Your task to perform on an android device: open sync settings in chrome Image 0: 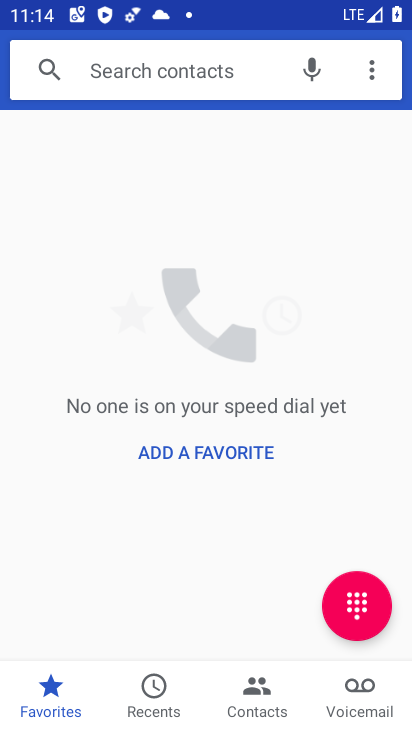
Step 0: press home button
Your task to perform on an android device: open sync settings in chrome Image 1: 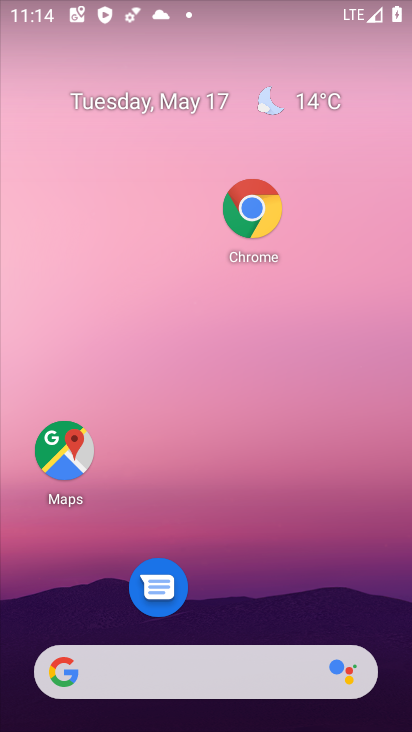
Step 1: click (254, 201)
Your task to perform on an android device: open sync settings in chrome Image 2: 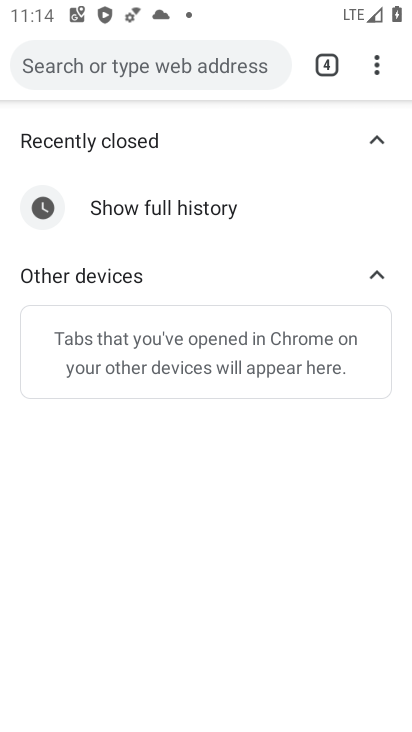
Step 2: click (386, 71)
Your task to perform on an android device: open sync settings in chrome Image 3: 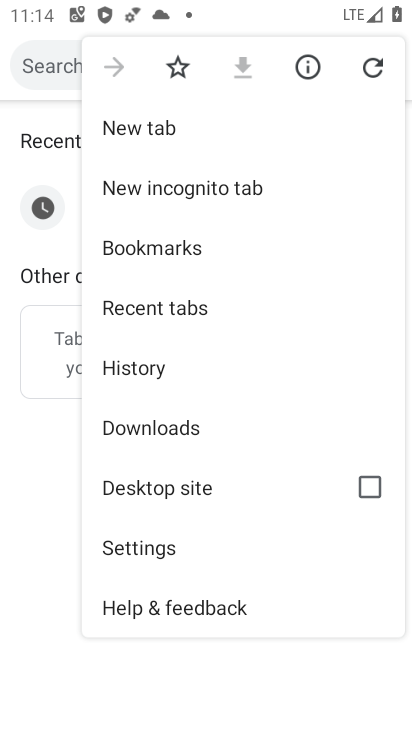
Step 3: click (161, 544)
Your task to perform on an android device: open sync settings in chrome Image 4: 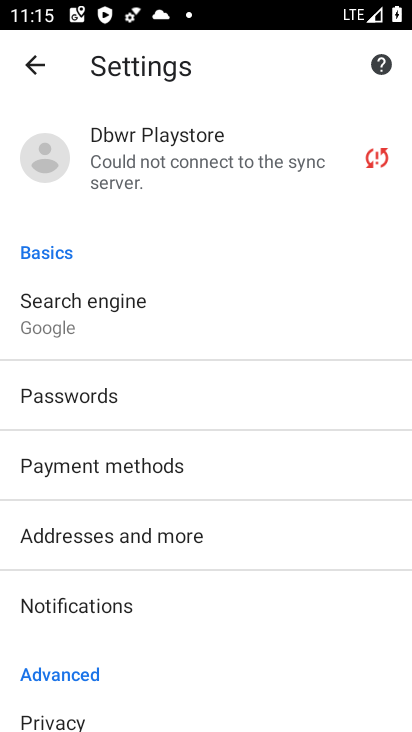
Step 4: click (241, 147)
Your task to perform on an android device: open sync settings in chrome Image 5: 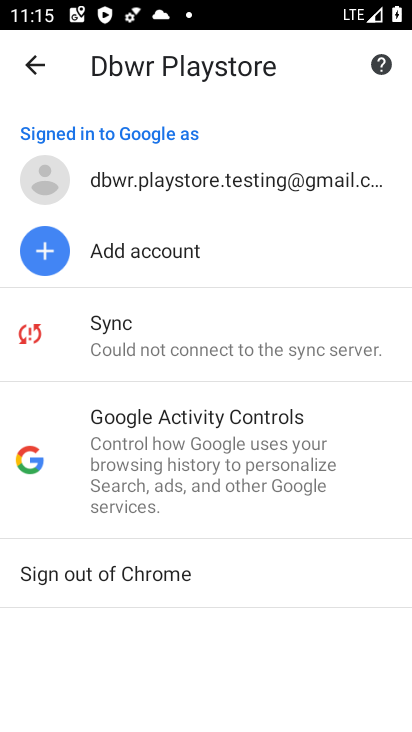
Step 5: click (191, 353)
Your task to perform on an android device: open sync settings in chrome Image 6: 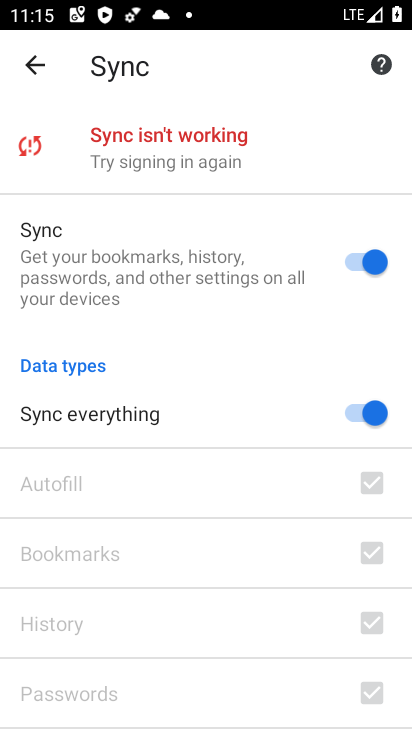
Step 6: task complete